Your task to perform on an android device: Open Google Maps and go to "Timeline" Image 0: 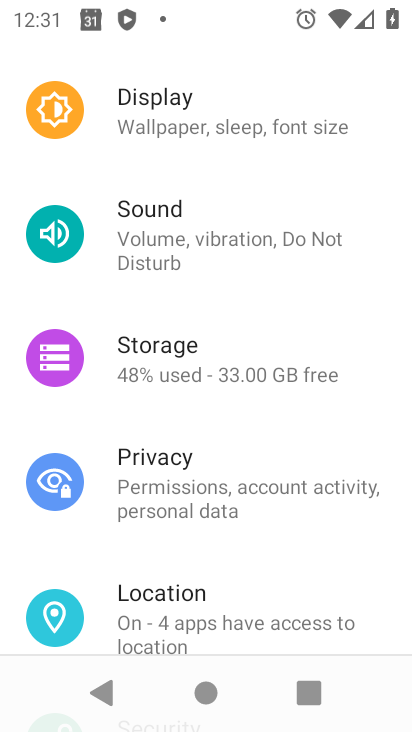
Step 0: press back button
Your task to perform on an android device: Open Google Maps and go to "Timeline" Image 1: 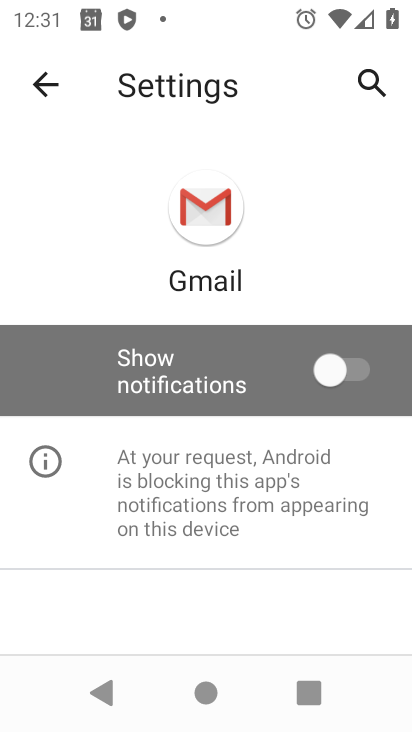
Step 1: press back button
Your task to perform on an android device: Open Google Maps and go to "Timeline" Image 2: 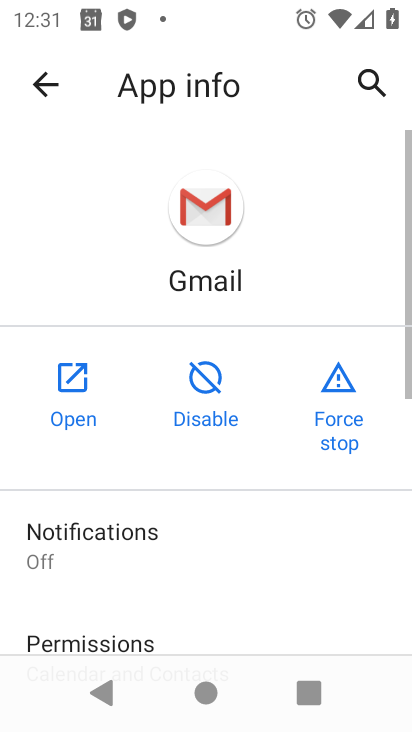
Step 2: press back button
Your task to perform on an android device: Open Google Maps and go to "Timeline" Image 3: 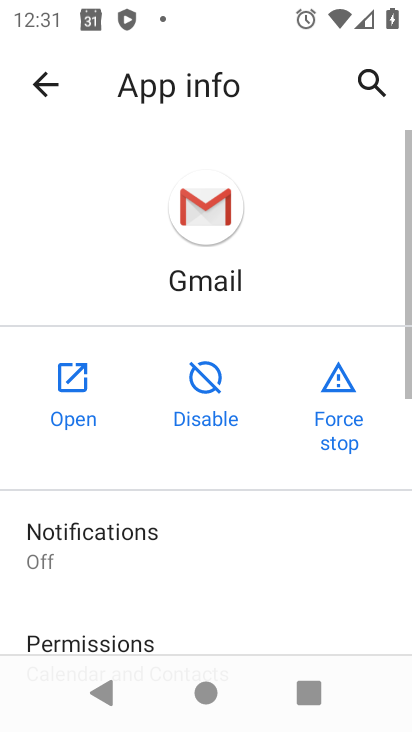
Step 3: press back button
Your task to perform on an android device: Open Google Maps and go to "Timeline" Image 4: 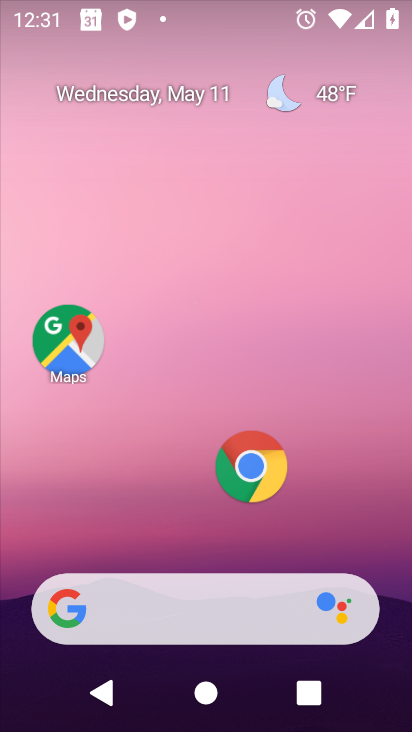
Step 4: press back button
Your task to perform on an android device: Open Google Maps and go to "Timeline" Image 5: 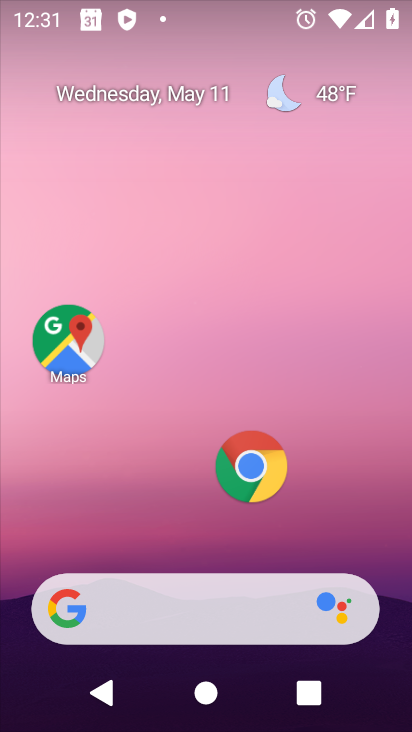
Step 5: click (78, 331)
Your task to perform on an android device: Open Google Maps and go to "Timeline" Image 6: 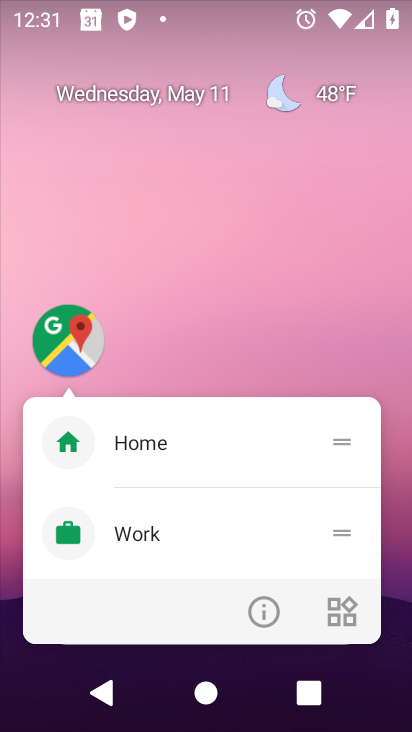
Step 6: click (72, 323)
Your task to perform on an android device: Open Google Maps and go to "Timeline" Image 7: 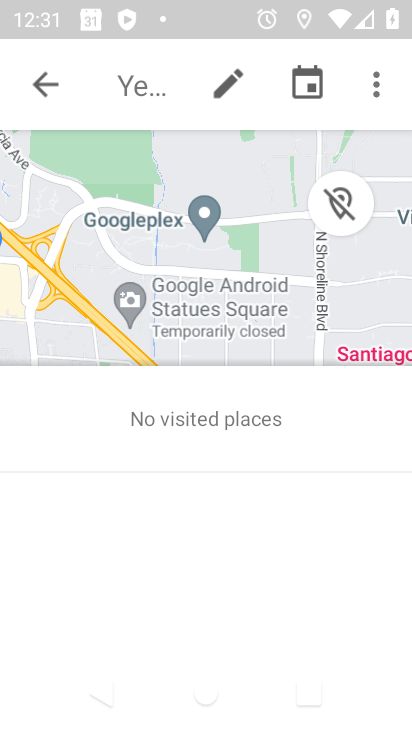
Step 7: task complete